Your task to perform on an android device: turn off location Image 0: 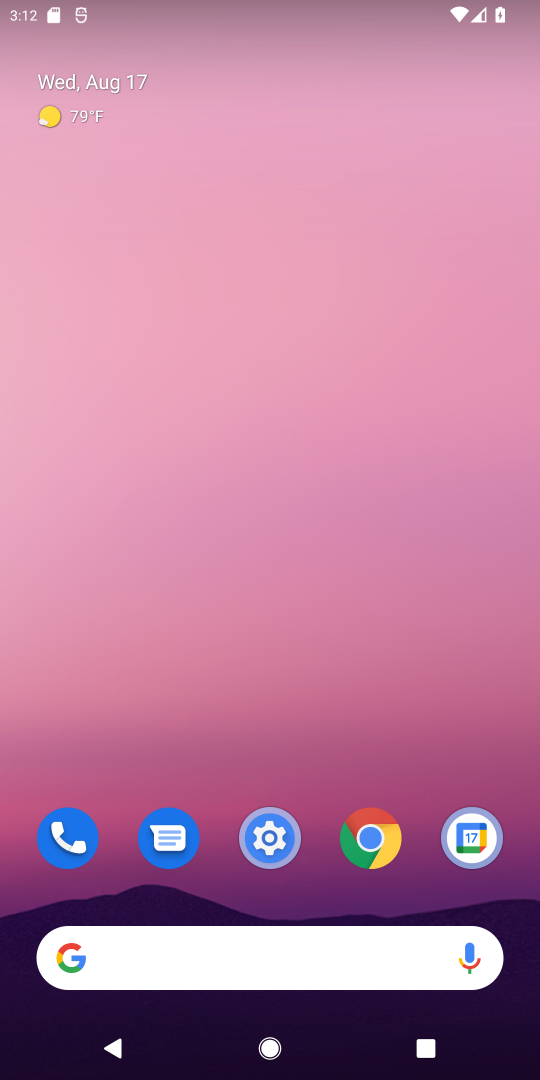
Step 0: drag from (285, 863) to (371, 375)
Your task to perform on an android device: turn off location Image 1: 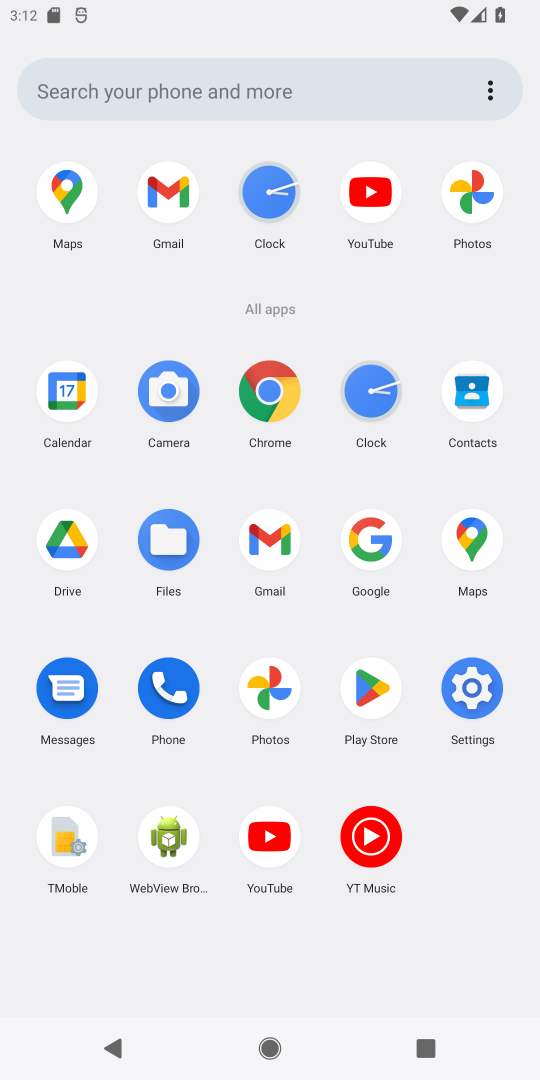
Step 1: click (460, 700)
Your task to perform on an android device: turn off location Image 2: 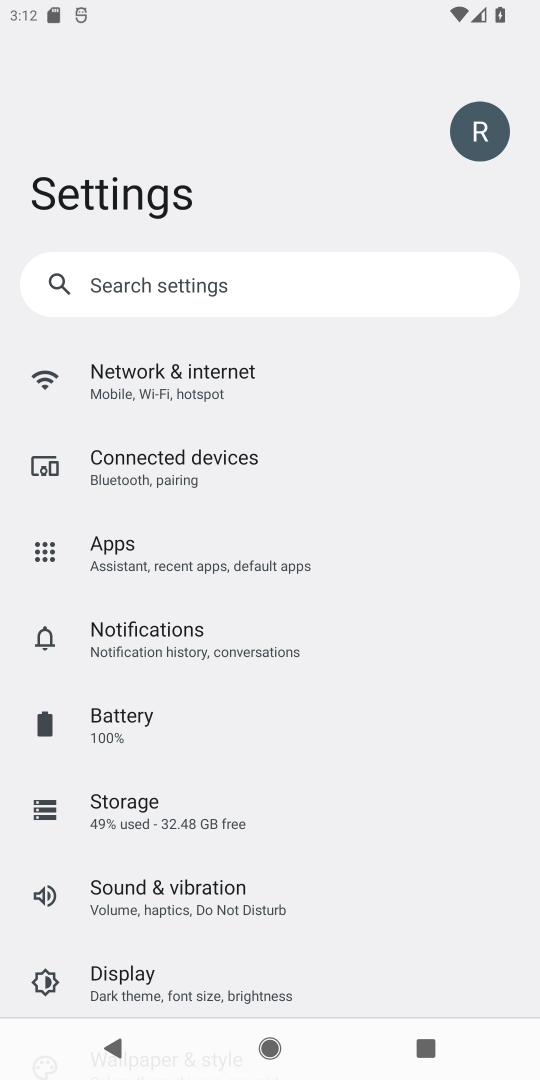
Step 2: drag from (138, 963) to (233, 351)
Your task to perform on an android device: turn off location Image 3: 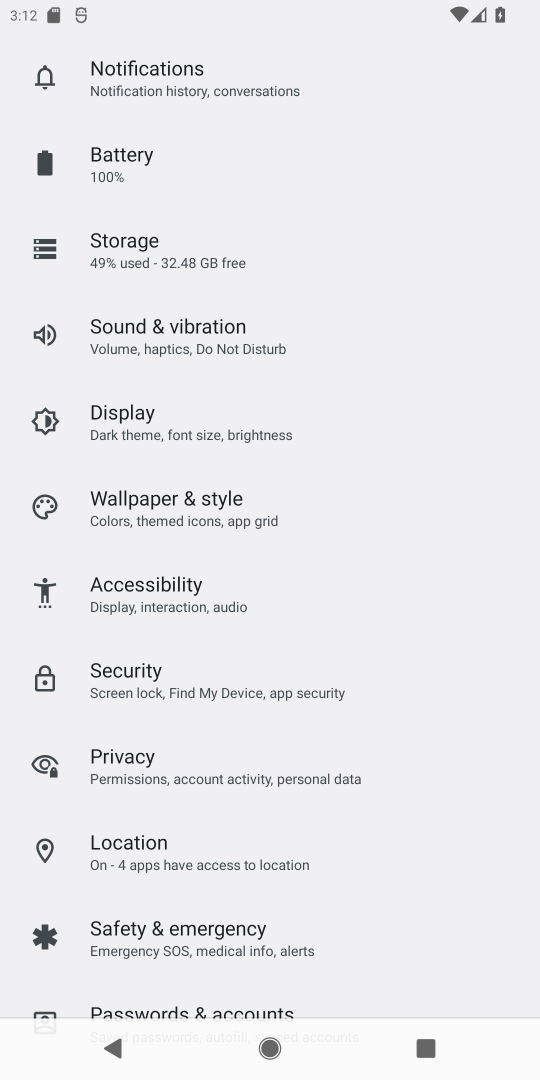
Step 3: click (138, 866)
Your task to perform on an android device: turn off location Image 4: 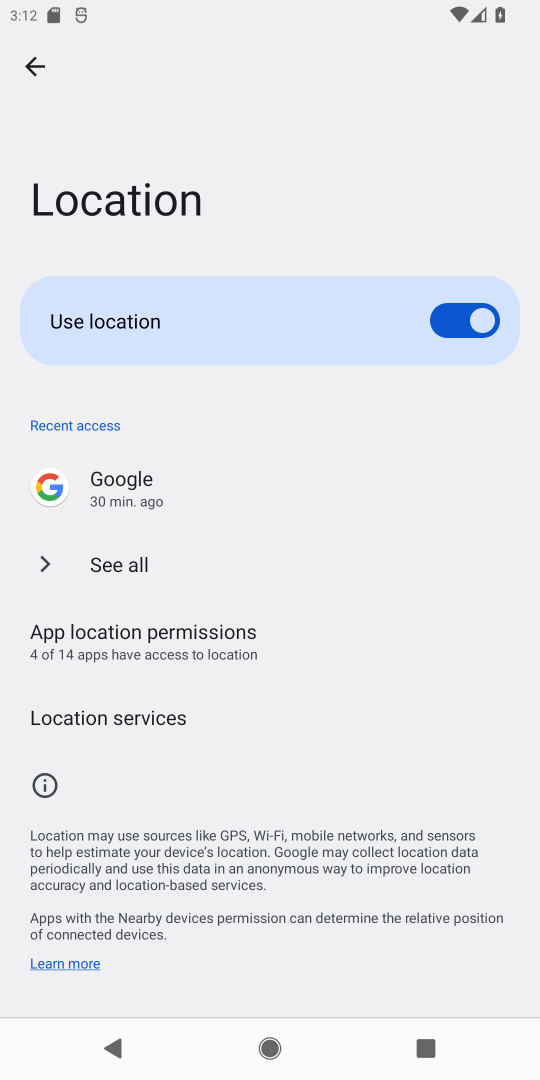
Step 4: click (460, 314)
Your task to perform on an android device: turn off location Image 5: 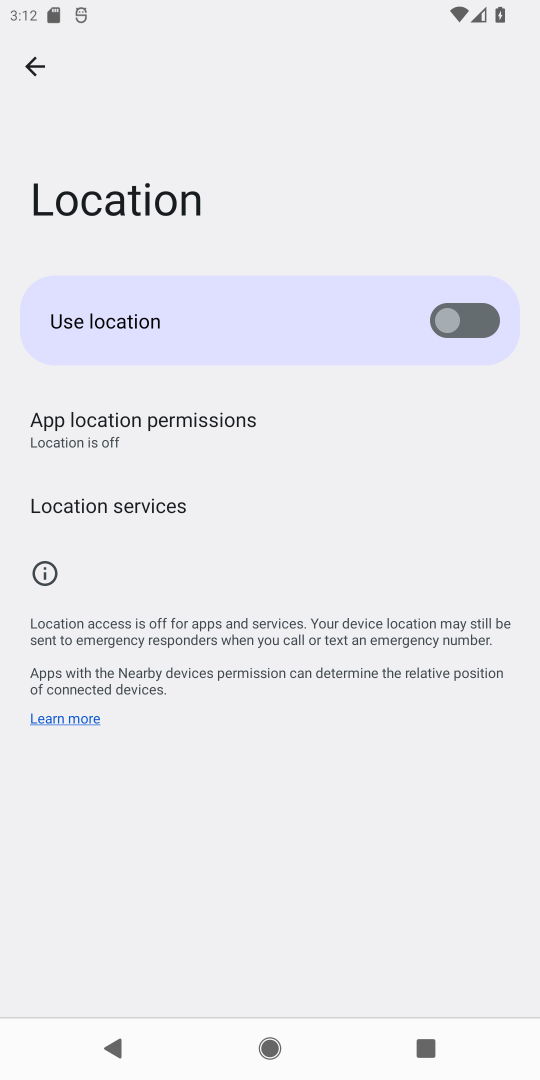
Step 5: task complete